Your task to perform on an android device: Go to location settings Image 0: 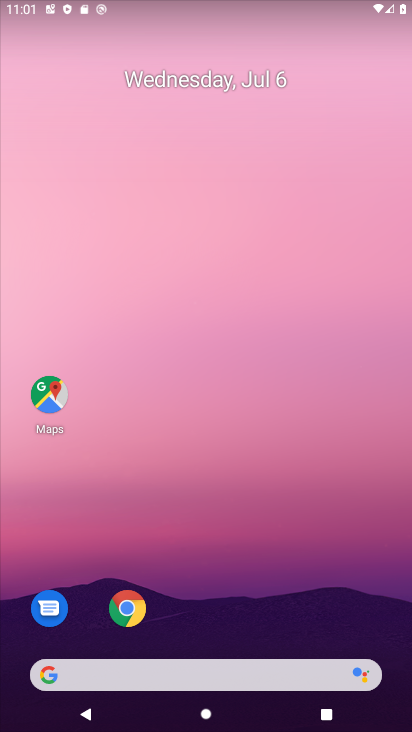
Step 0: drag from (238, 635) to (246, 229)
Your task to perform on an android device: Go to location settings Image 1: 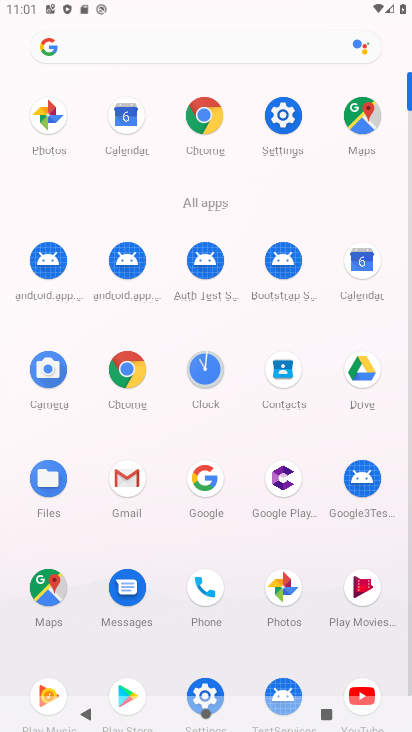
Step 1: click (278, 114)
Your task to perform on an android device: Go to location settings Image 2: 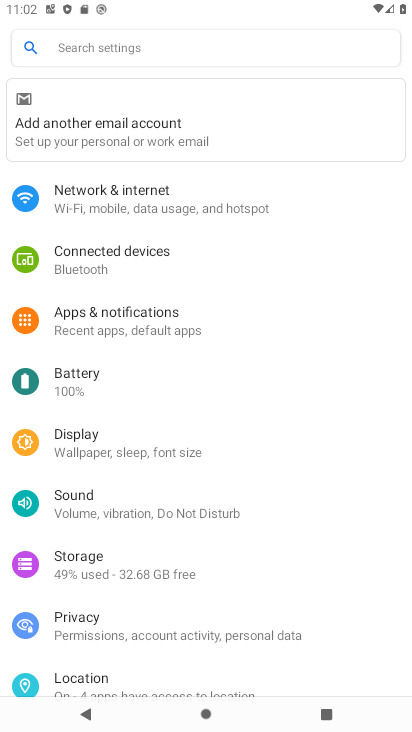
Step 2: drag from (138, 585) to (111, 168)
Your task to perform on an android device: Go to location settings Image 3: 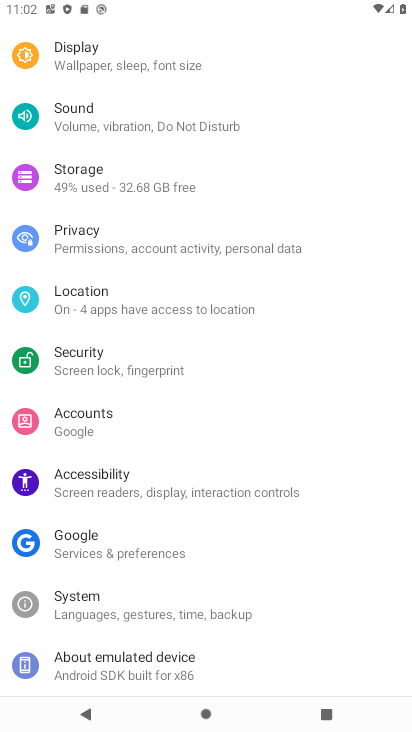
Step 3: click (87, 312)
Your task to perform on an android device: Go to location settings Image 4: 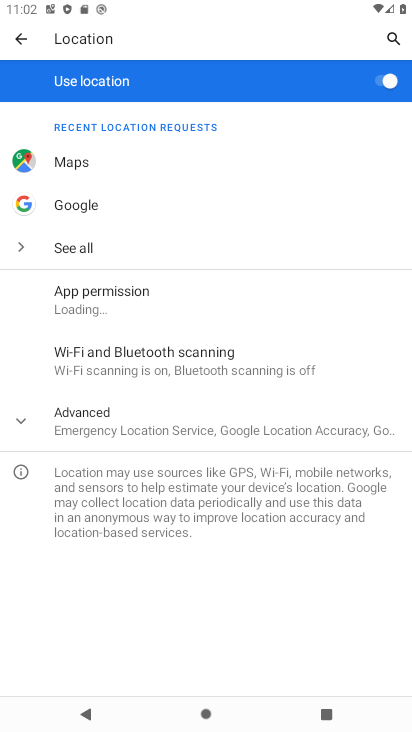
Step 4: click (111, 440)
Your task to perform on an android device: Go to location settings Image 5: 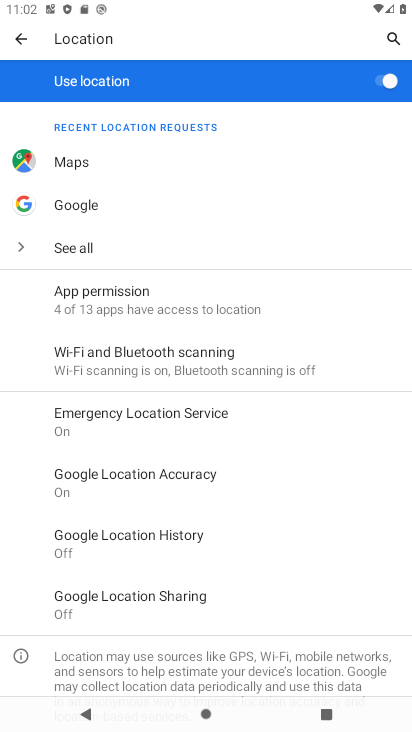
Step 5: task complete